Your task to perform on an android device: Play the last video I watched on Youtube Image 0: 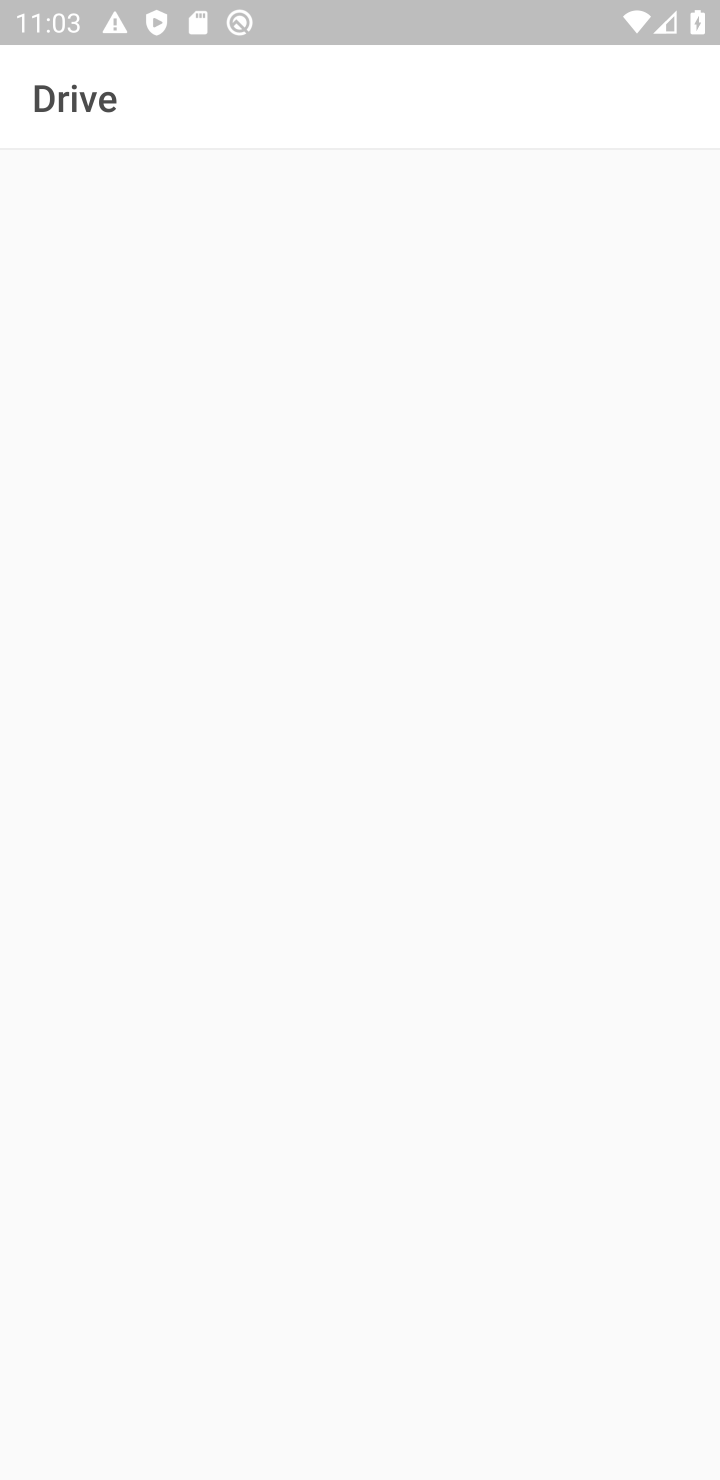
Step 0: press home button
Your task to perform on an android device: Play the last video I watched on Youtube Image 1: 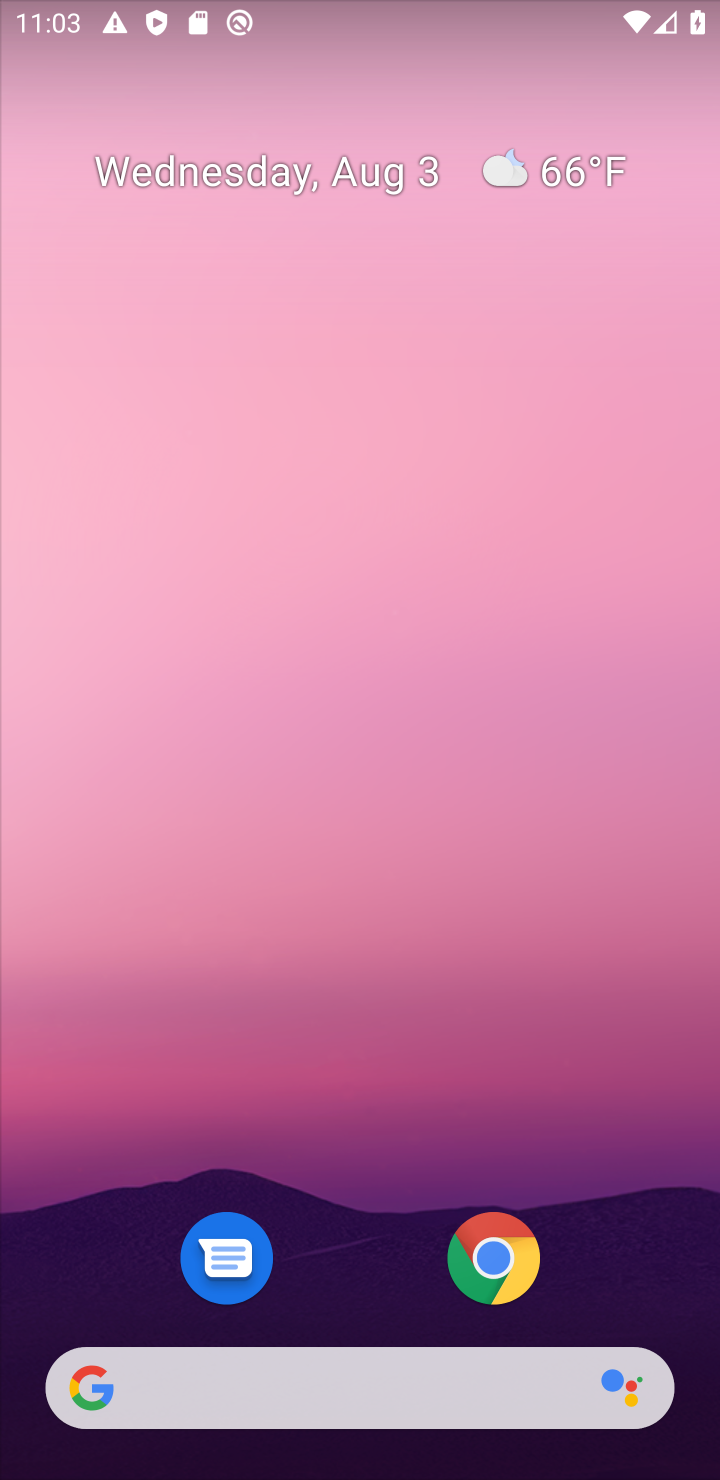
Step 1: drag from (376, 1297) to (445, 0)
Your task to perform on an android device: Play the last video I watched on Youtube Image 2: 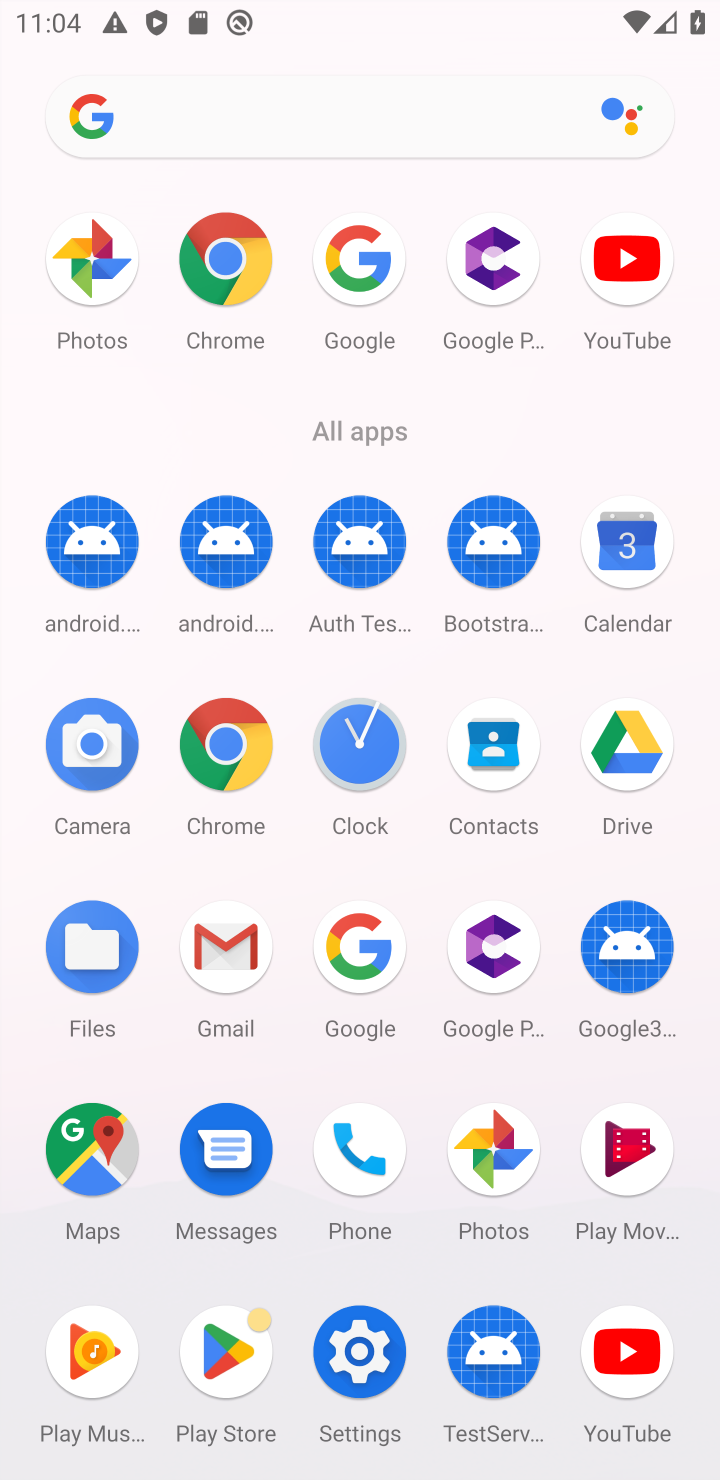
Step 2: click (630, 254)
Your task to perform on an android device: Play the last video I watched on Youtube Image 3: 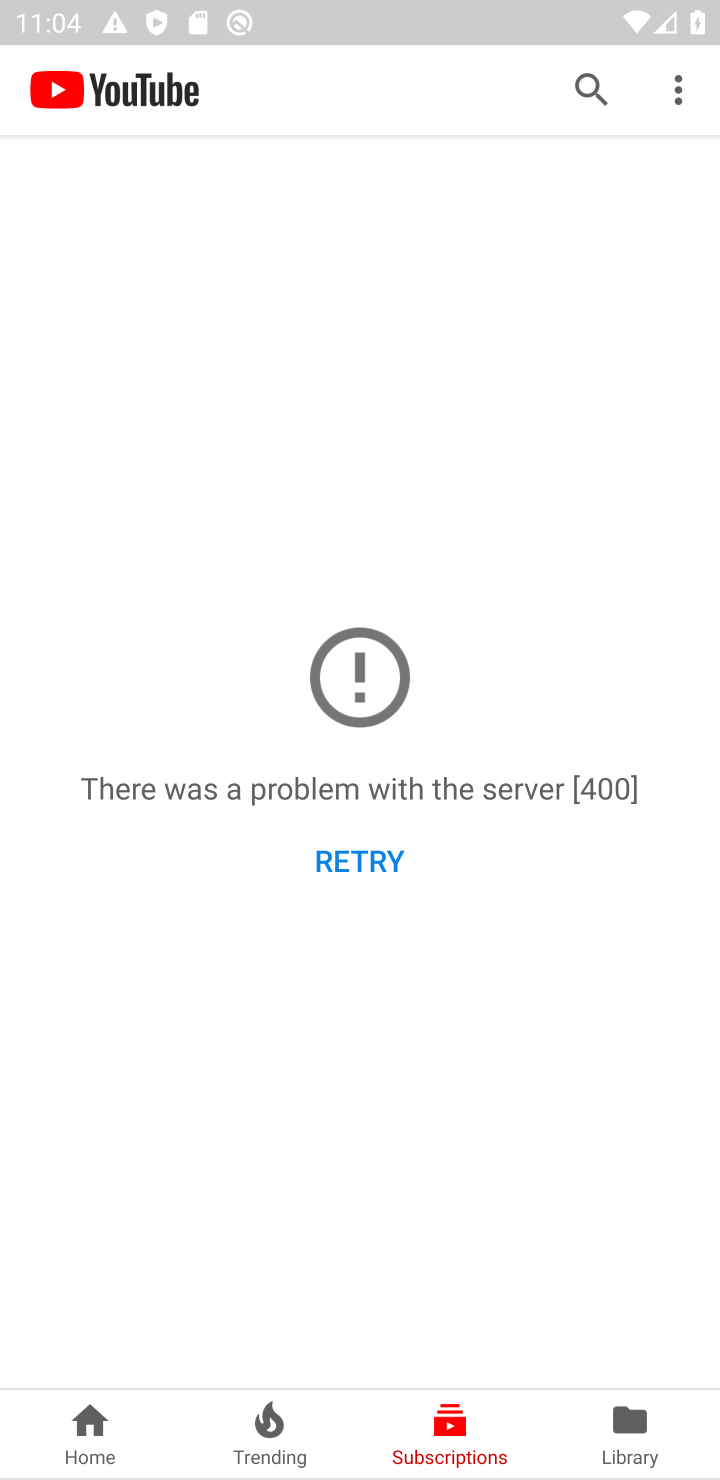
Step 3: click (635, 1413)
Your task to perform on an android device: Play the last video I watched on Youtube Image 4: 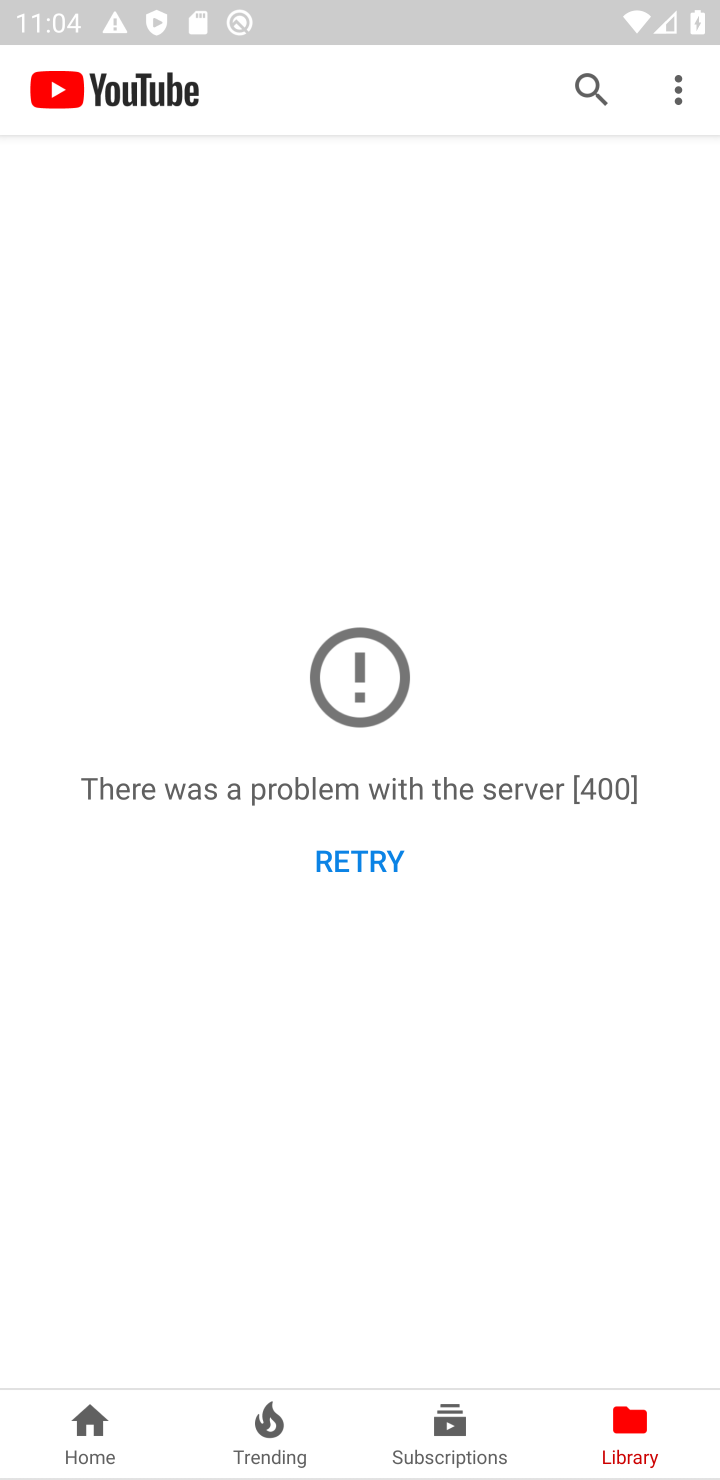
Step 4: click (358, 854)
Your task to perform on an android device: Play the last video I watched on Youtube Image 5: 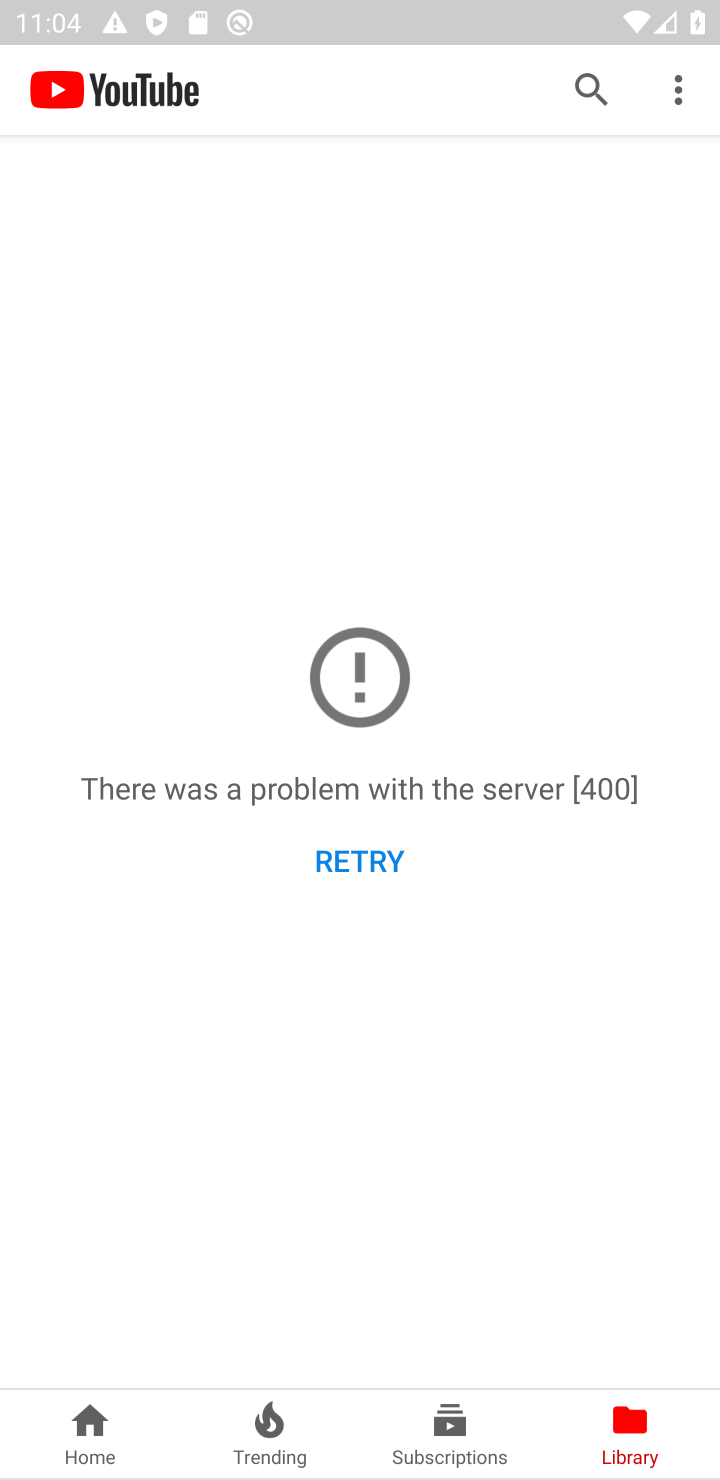
Step 5: click (375, 850)
Your task to perform on an android device: Play the last video I watched on Youtube Image 6: 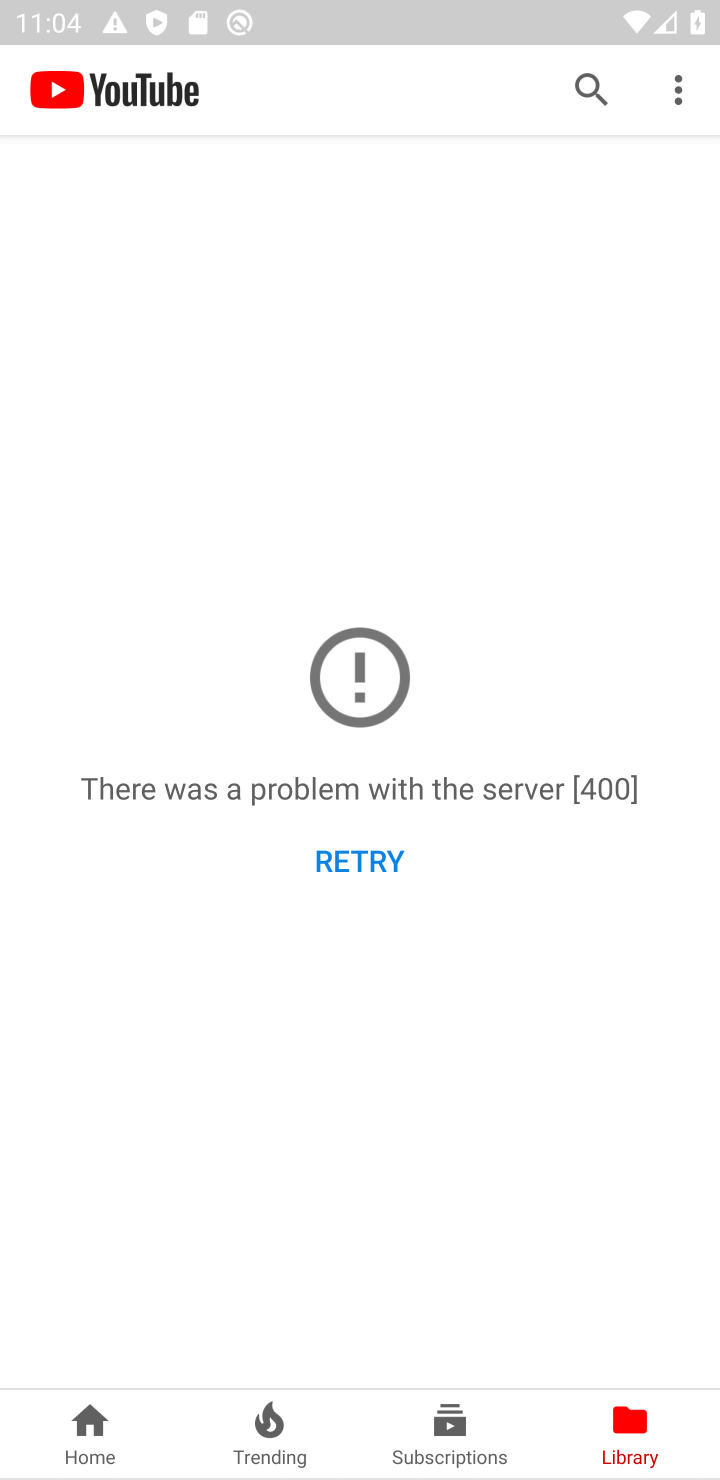
Step 6: task complete